Your task to perform on an android device: Go to battery settings Image 0: 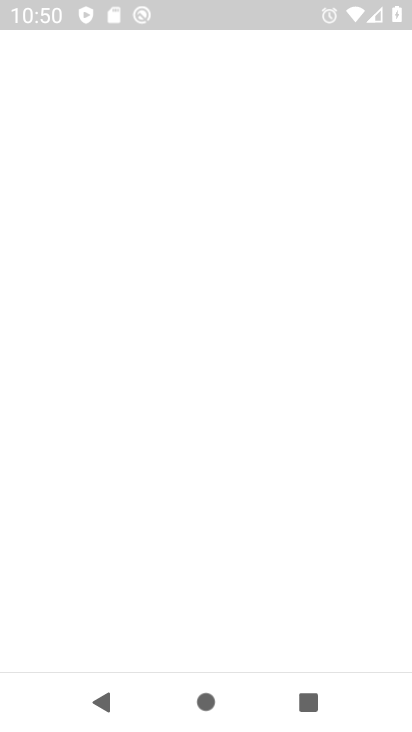
Step 0: drag from (187, 592) to (217, 189)
Your task to perform on an android device: Go to battery settings Image 1: 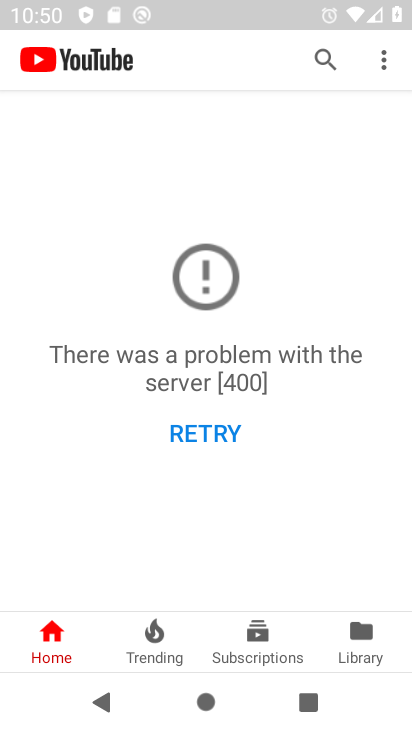
Step 1: press home button
Your task to perform on an android device: Go to battery settings Image 2: 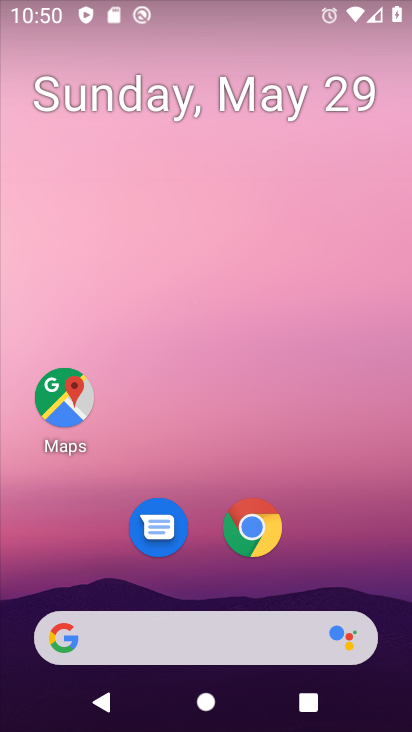
Step 2: drag from (204, 593) to (212, 66)
Your task to perform on an android device: Go to battery settings Image 3: 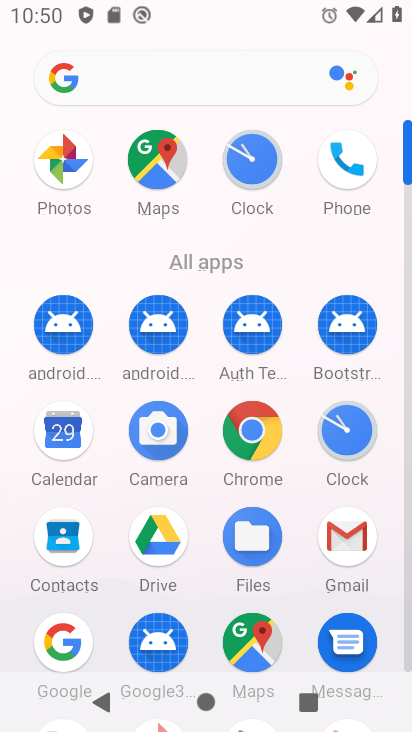
Step 3: drag from (203, 670) to (225, 176)
Your task to perform on an android device: Go to battery settings Image 4: 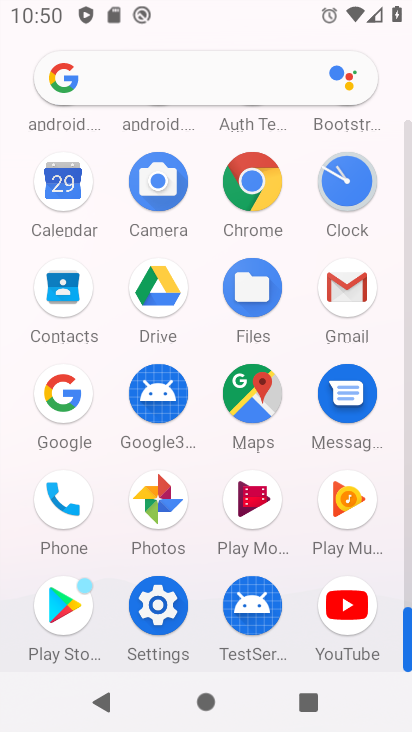
Step 4: click (161, 597)
Your task to perform on an android device: Go to battery settings Image 5: 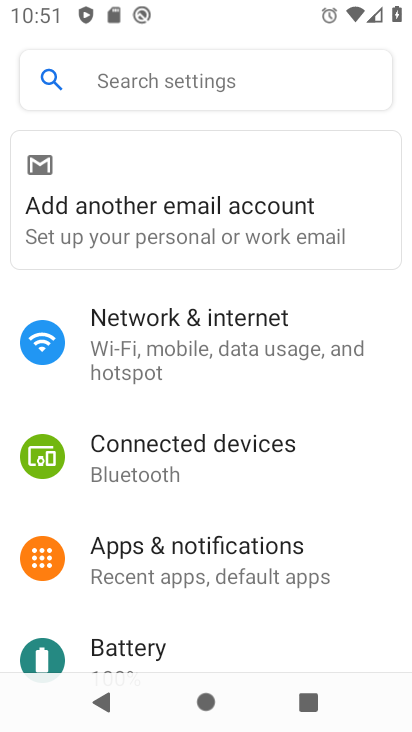
Step 5: click (134, 640)
Your task to perform on an android device: Go to battery settings Image 6: 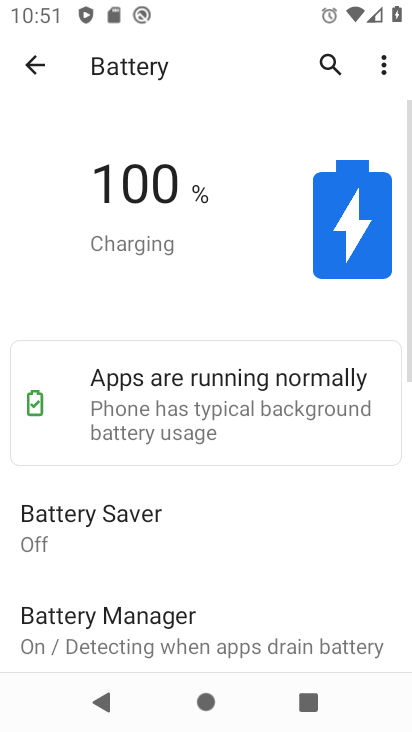
Step 6: task complete